Your task to perform on an android device: Open Youtube and go to the subscriptions tab Image 0: 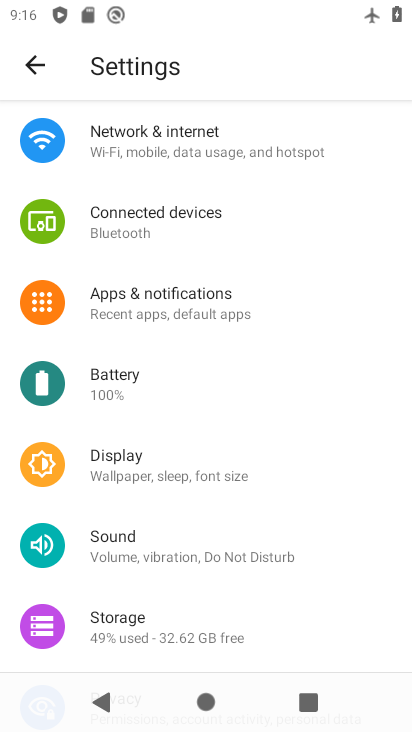
Step 0: press home button
Your task to perform on an android device: Open Youtube and go to the subscriptions tab Image 1: 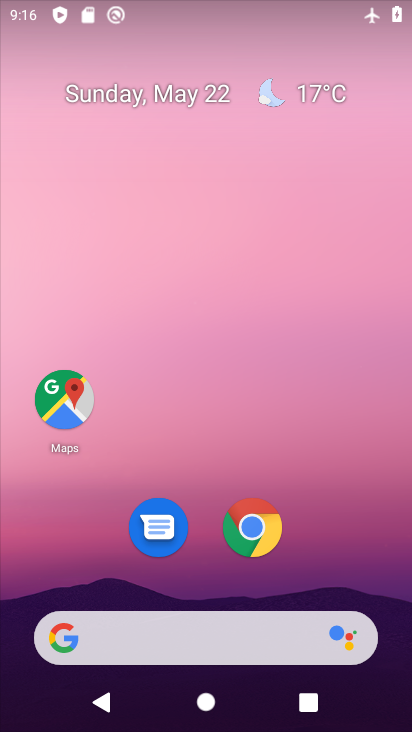
Step 1: drag from (323, 545) to (237, 32)
Your task to perform on an android device: Open Youtube and go to the subscriptions tab Image 2: 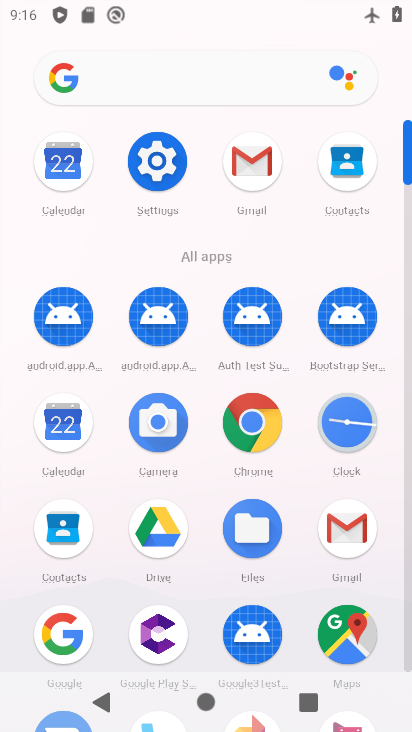
Step 2: drag from (292, 578) to (223, 140)
Your task to perform on an android device: Open Youtube and go to the subscriptions tab Image 3: 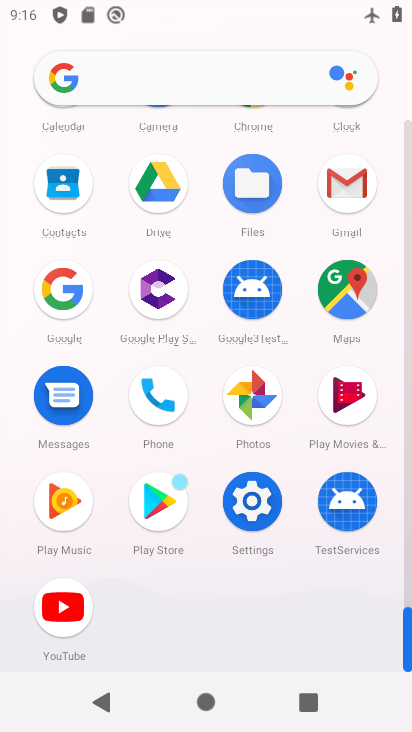
Step 3: click (57, 607)
Your task to perform on an android device: Open Youtube and go to the subscriptions tab Image 4: 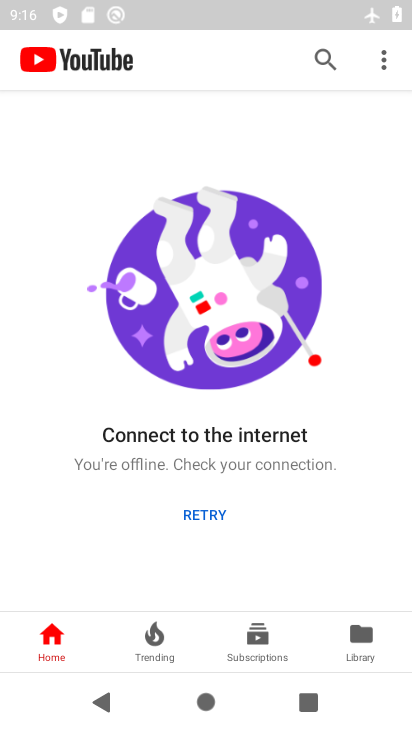
Step 4: click (256, 639)
Your task to perform on an android device: Open Youtube and go to the subscriptions tab Image 5: 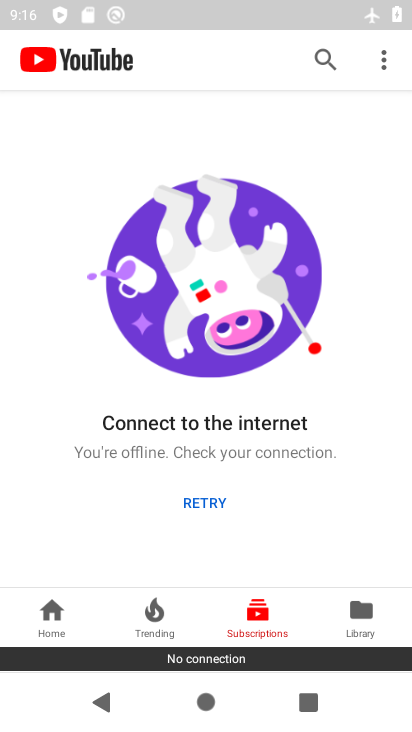
Step 5: task complete